Your task to perform on an android device: open app "Google Pay: Save, Pay, Manage" Image 0: 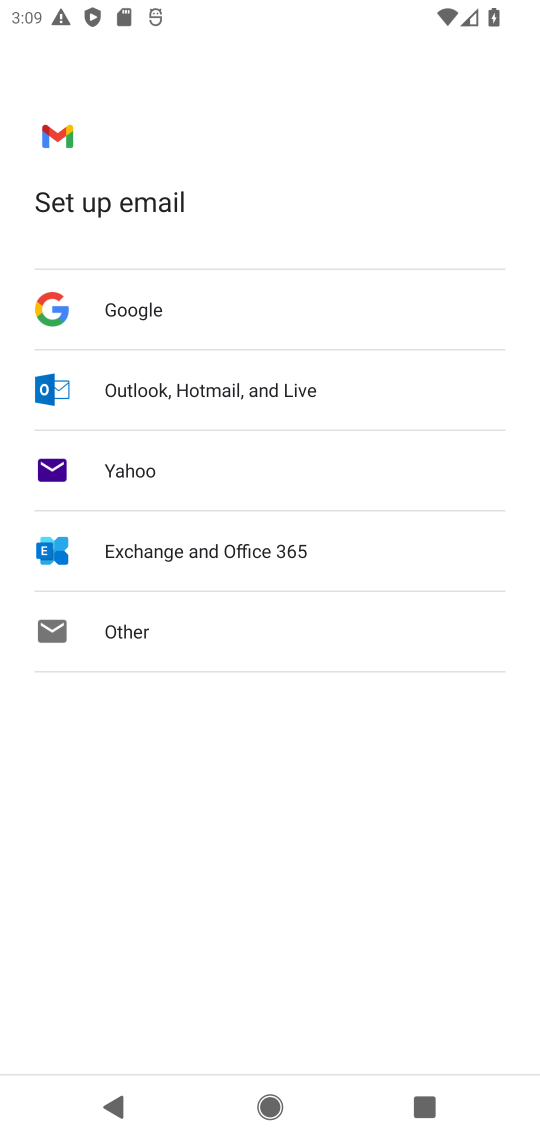
Step 0: press home button
Your task to perform on an android device: open app "Google Pay: Save, Pay, Manage" Image 1: 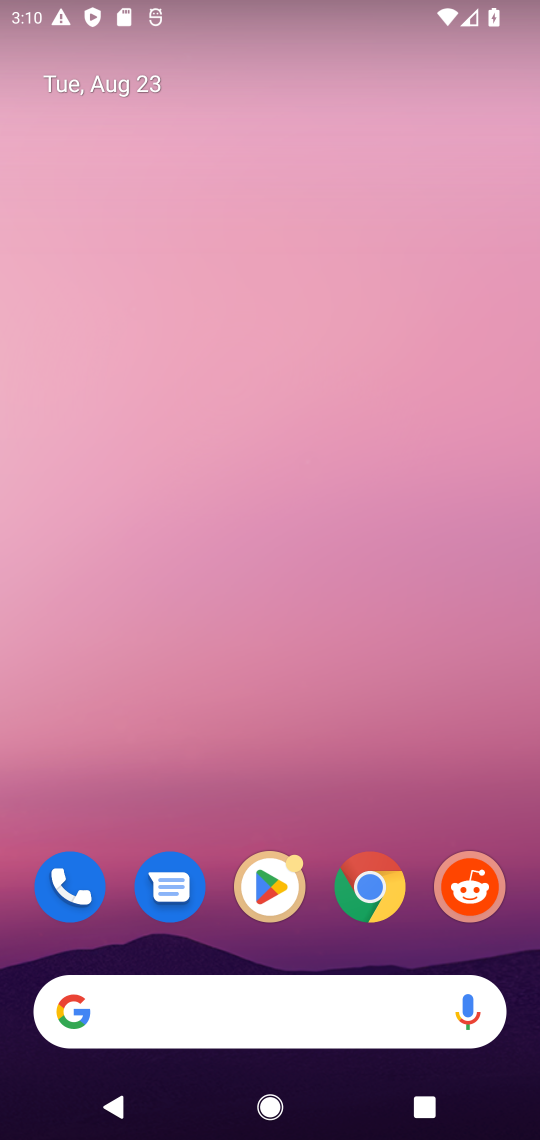
Step 1: click (277, 888)
Your task to perform on an android device: open app "Google Pay: Save, Pay, Manage" Image 2: 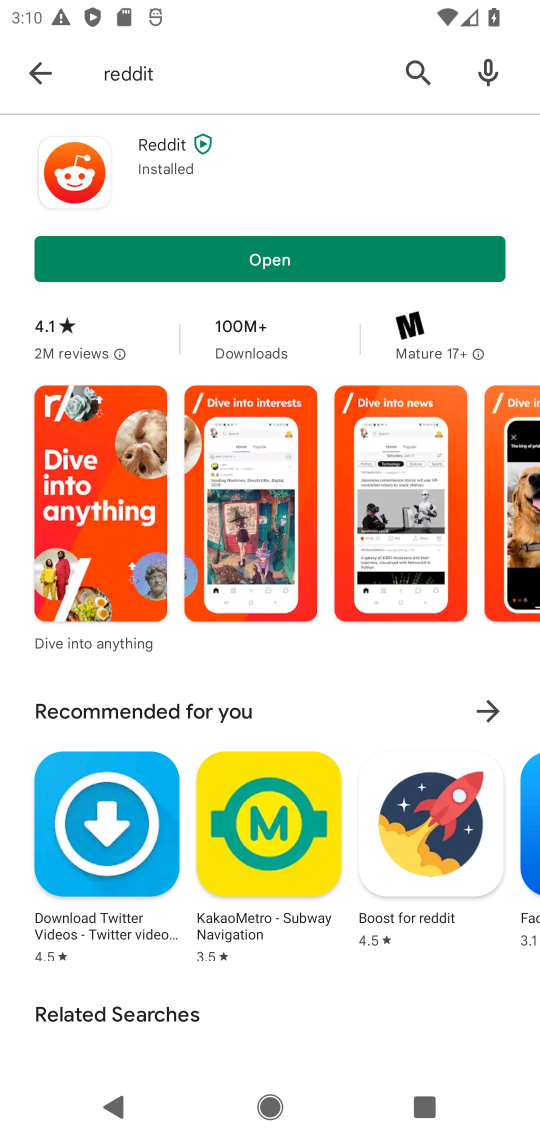
Step 2: click (34, 79)
Your task to perform on an android device: open app "Google Pay: Save, Pay, Manage" Image 3: 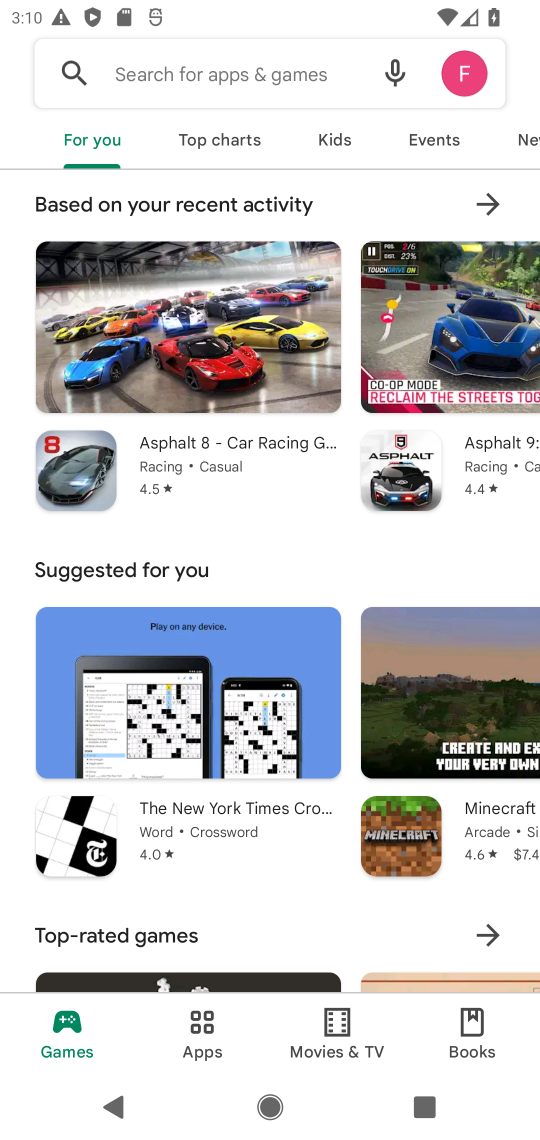
Step 3: click (172, 70)
Your task to perform on an android device: open app "Google Pay: Save, Pay, Manage" Image 4: 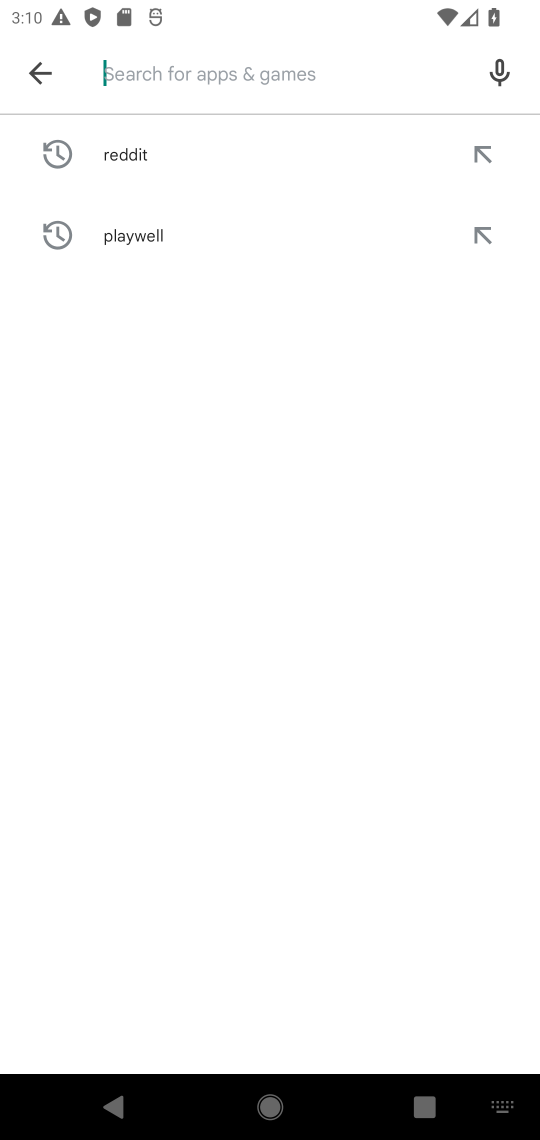
Step 4: type "Google Pay"
Your task to perform on an android device: open app "Google Pay: Save, Pay, Manage" Image 5: 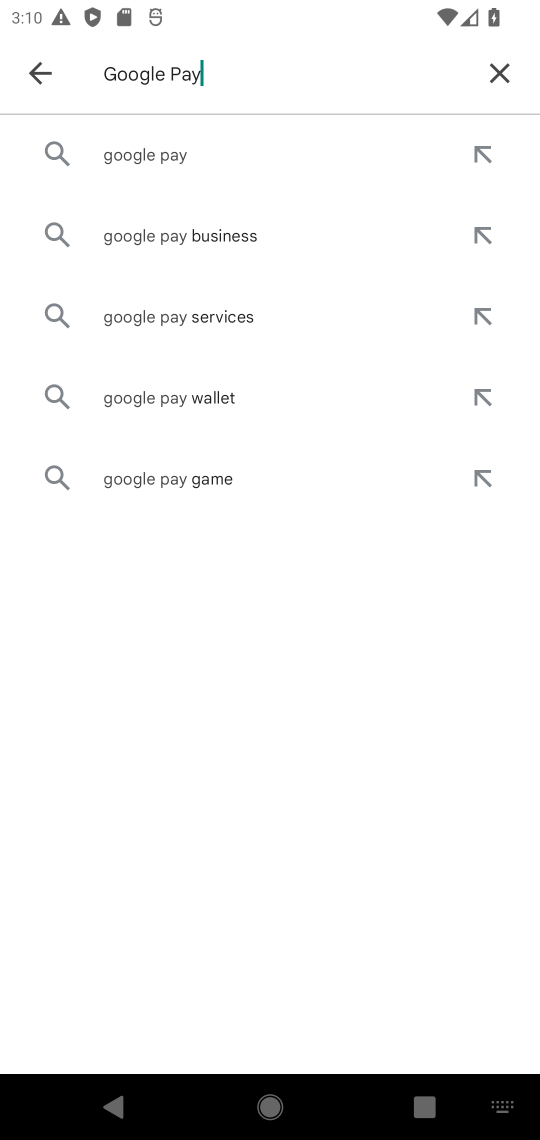
Step 5: click (151, 141)
Your task to perform on an android device: open app "Google Pay: Save, Pay, Manage" Image 6: 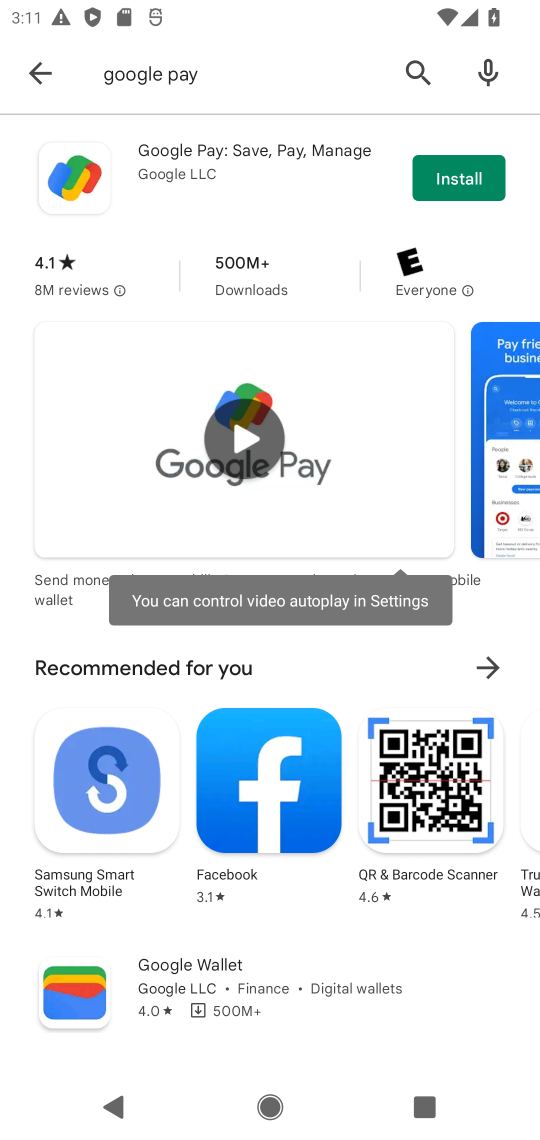
Step 6: click (471, 186)
Your task to perform on an android device: open app "Google Pay: Save, Pay, Manage" Image 7: 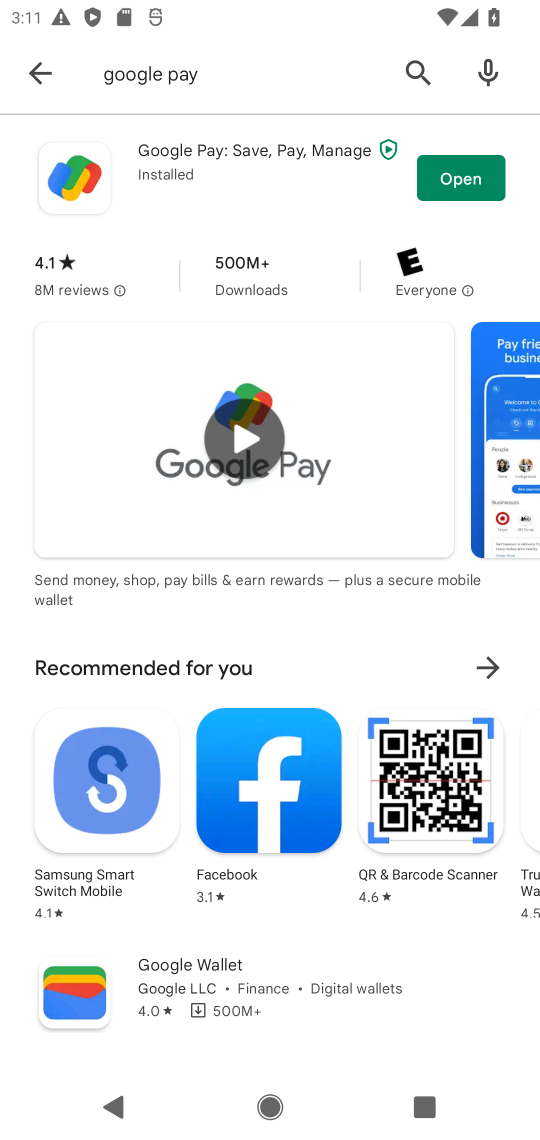
Step 7: click (471, 186)
Your task to perform on an android device: open app "Google Pay: Save, Pay, Manage" Image 8: 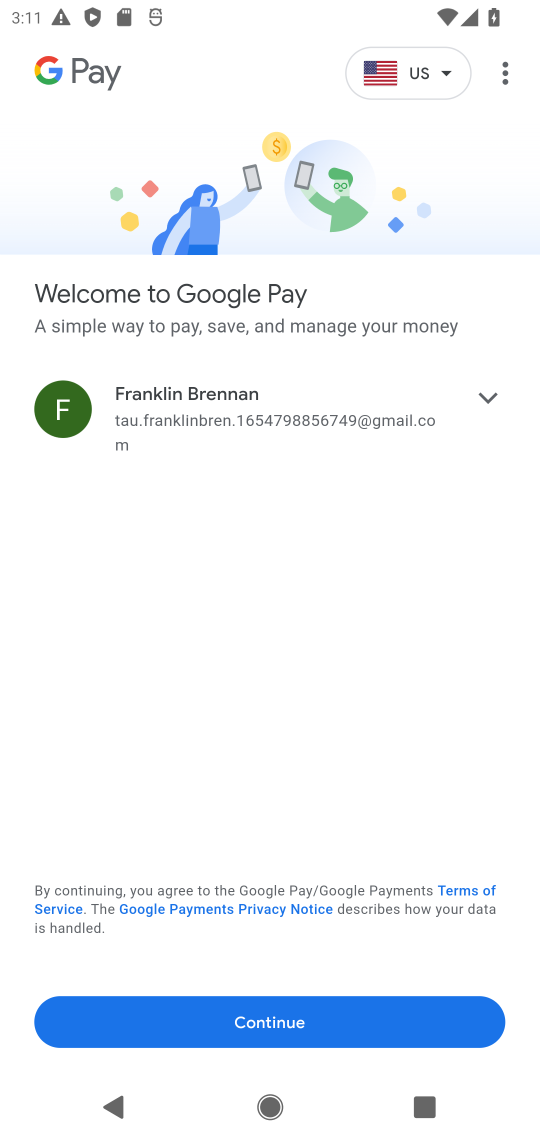
Step 8: task complete